Your task to perform on an android device: turn off wifi Image 0: 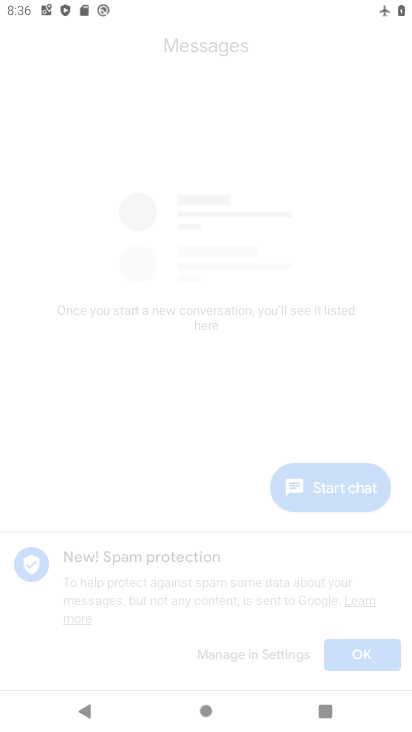
Step 0: drag from (249, 645) to (344, 20)
Your task to perform on an android device: turn off wifi Image 1: 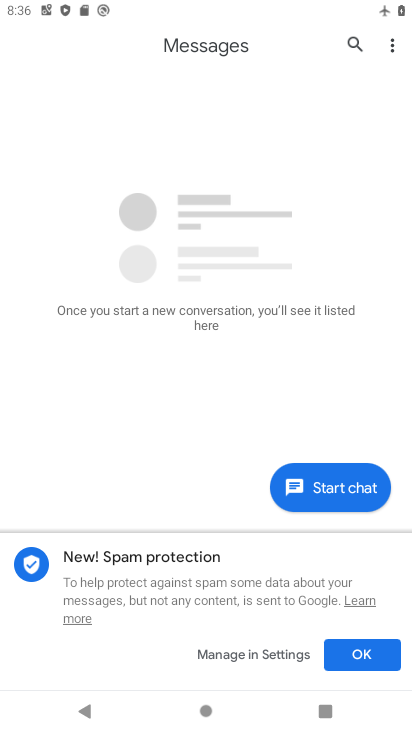
Step 1: press home button
Your task to perform on an android device: turn off wifi Image 2: 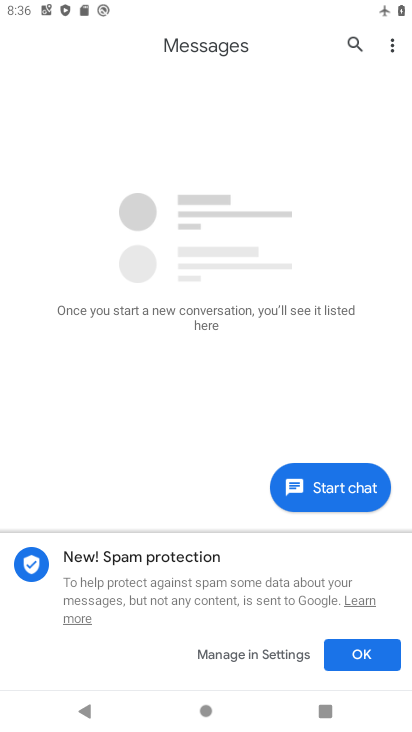
Step 2: drag from (344, 20) to (390, 560)
Your task to perform on an android device: turn off wifi Image 3: 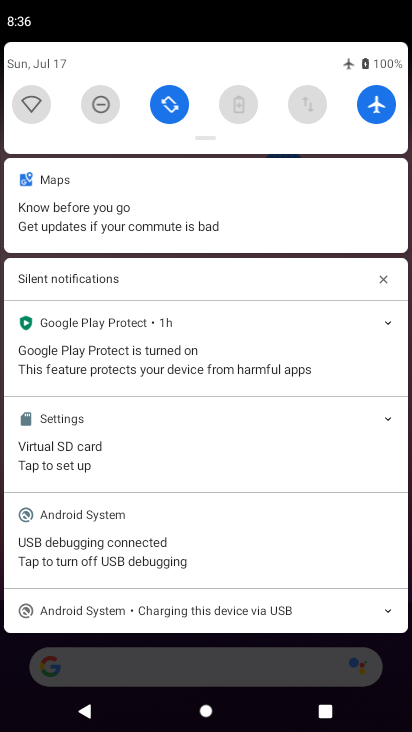
Step 3: drag from (185, 630) to (168, 97)
Your task to perform on an android device: turn off wifi Image 4: 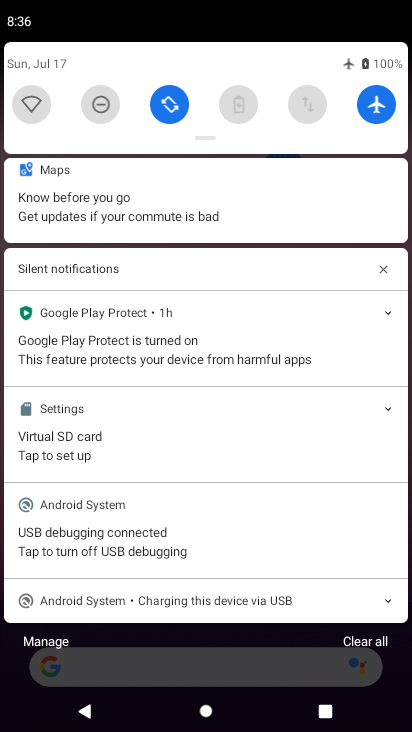
Step 4: press home button
Your task to perform on an android device: turn off wifi Image 5: 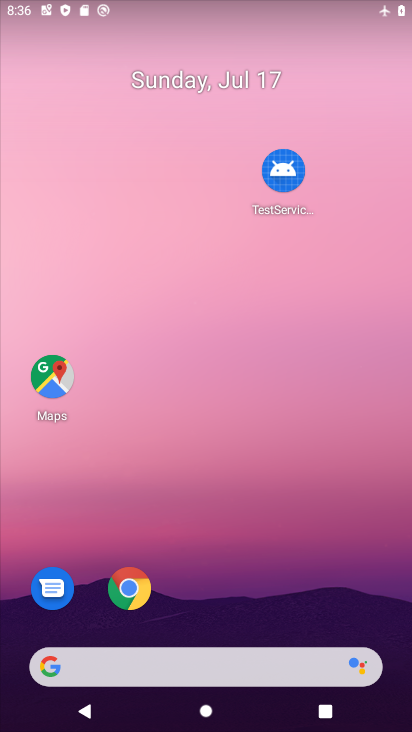
Step 5: drag from (201, 659) to (262, 176)
Your task to perform on an android device: turn off wifi Image 6: 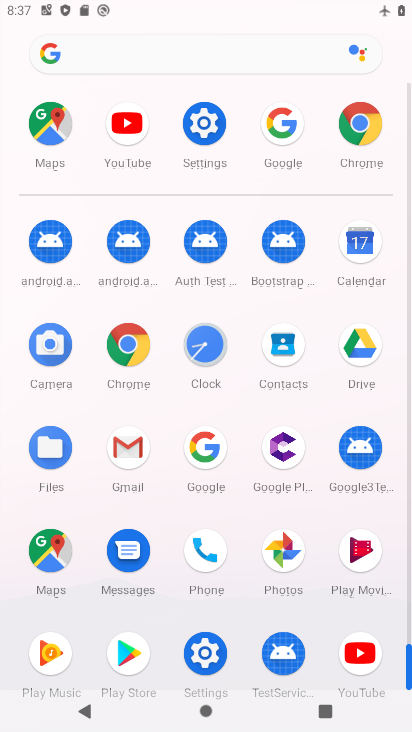
Step 6: click (204, 133)
Your task to perform on an android device: turn off wifi Image 7: 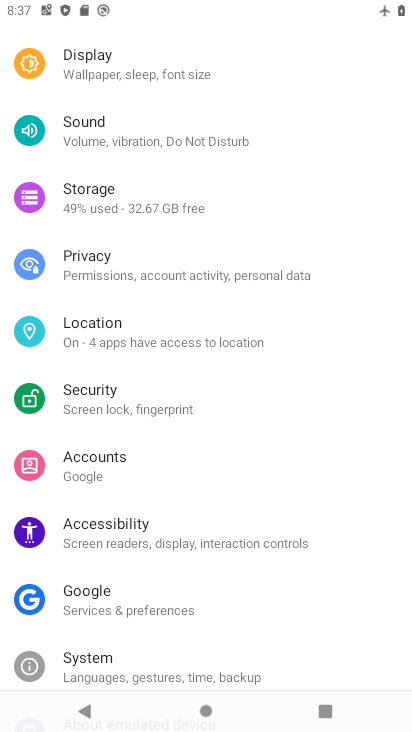
Step 7: drag from (198, 213) to (207, 639)
Your task to perform on an android device: turn off wifi Image 8: 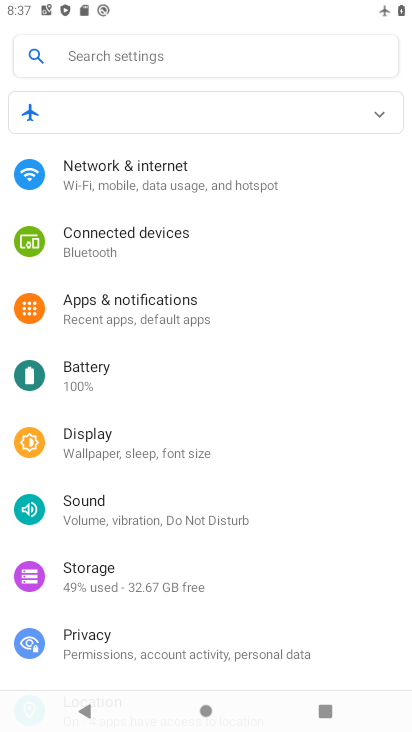
Step 8: click (200, 178)
Your task to perform on an android device: turn off wifi Image 9: 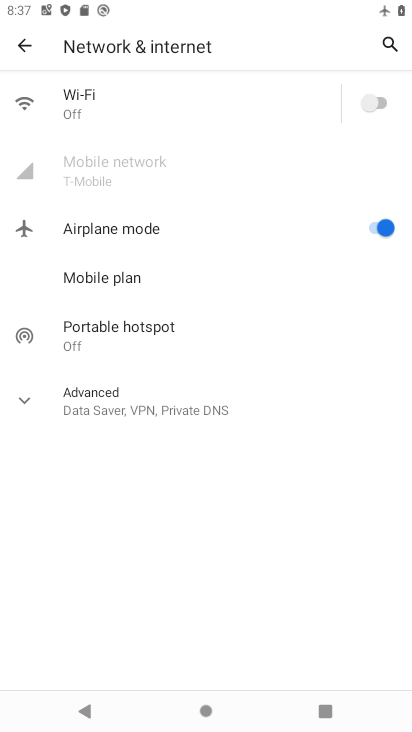
Step 9: task complete